Your task to perform on an android device: Search for Italian restaurants on Maps Image 0: 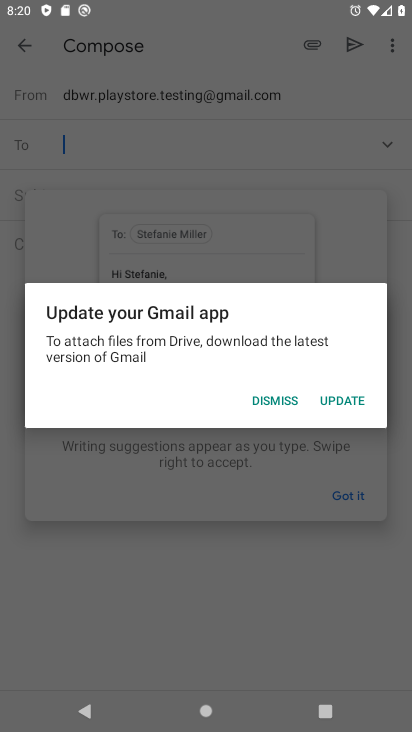
Step 0: press home button
Your task to perform on an android device: Search for Italian restaurants on Maps Image 1: 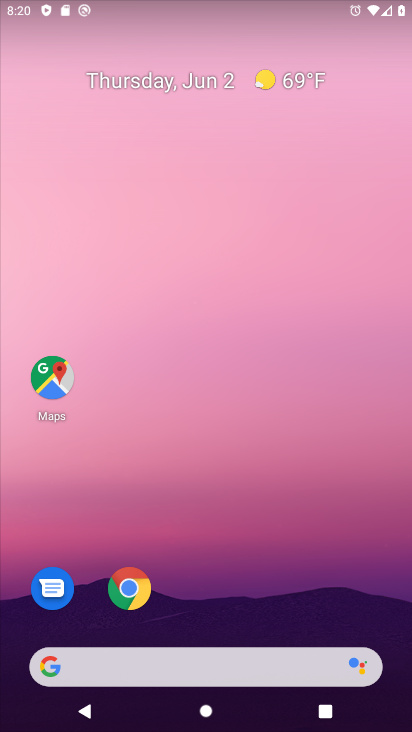
Step 1: drag from (230, 725) to (234, 152)
Your task to perform on an android device: Search for Italian restaurants on Maps Image 2: 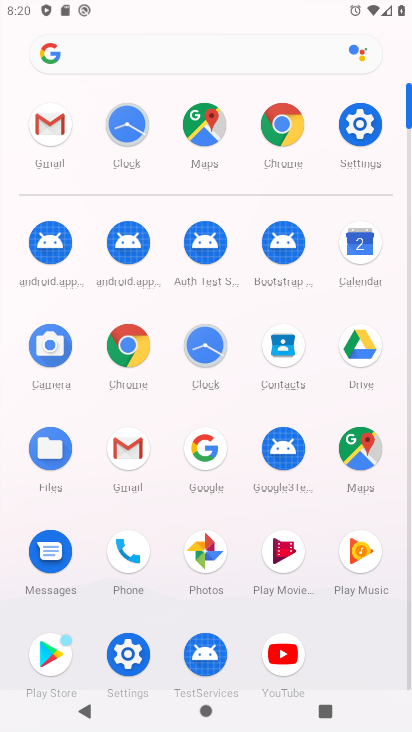
Step 2: click (353, 443)
Your task to perform on an android device: Search for Italian restaurants on Maps Image 3: 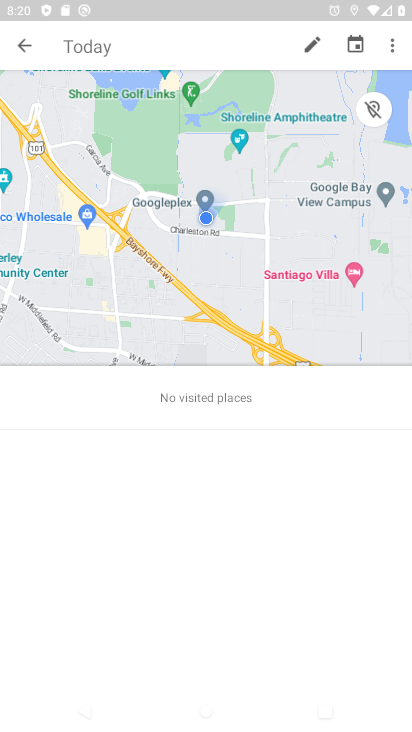
Step 3: click (23, 44)
Your task to perform on an android device: Search for Italian restaurants on Maps Image 4: 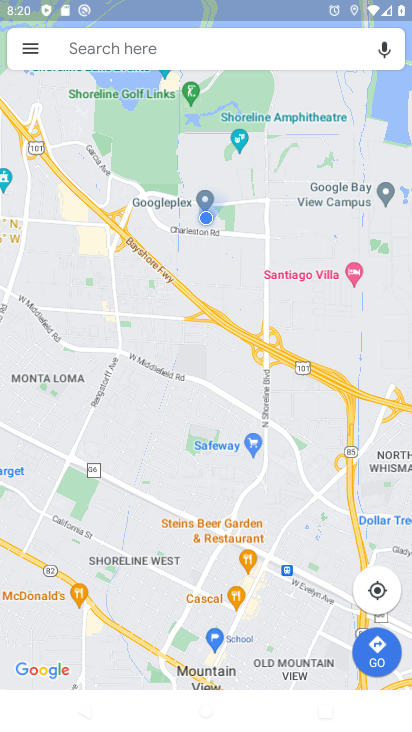
Step 4: click (191, 51)
Your task to perform on an android device: Search for Italian restaurants on Maps Image 5: 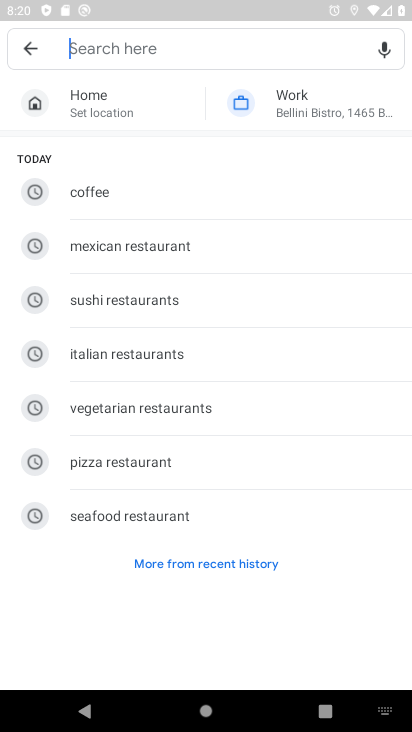
Step 5: type "Italian restaurants"
Your task to perform on an android device: Search for Italian restaurants on Maps Image 6: 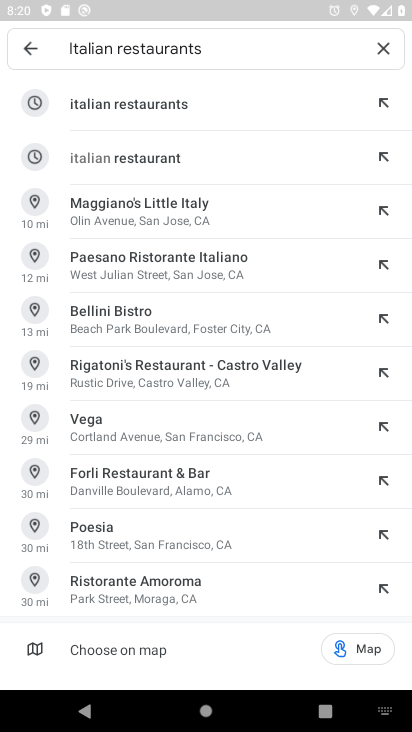
Step 6: click (149, 96)
Your task to perform on an android device: Search for Italian restaurants on Maps Image 7: 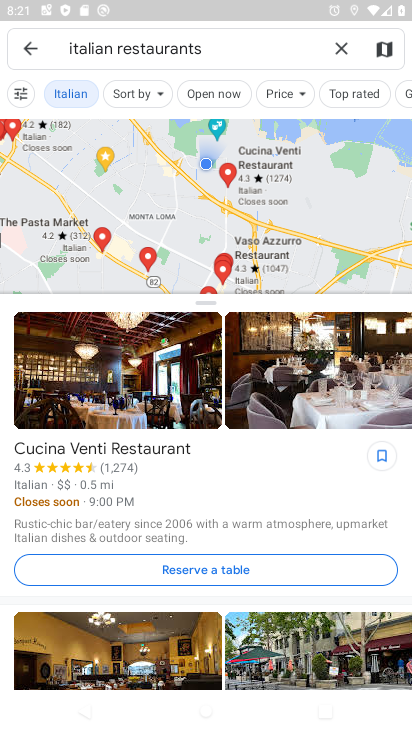
Step 7: task complete